Your task to perform on an android device: check google app version Image 0: 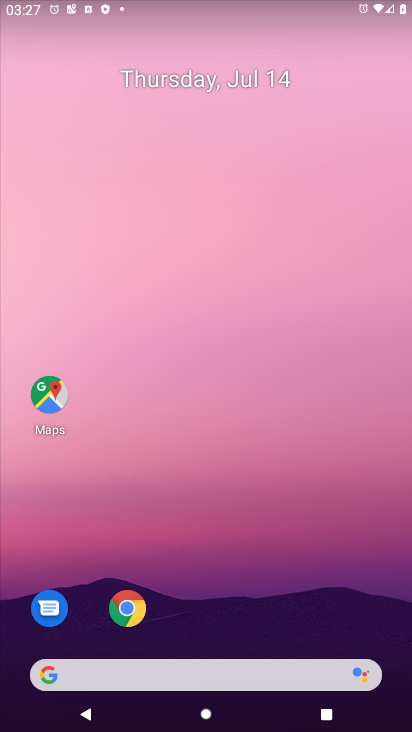
Step 0: click (131, 609)
Your task to perform on an android device: check google app version Image 1: 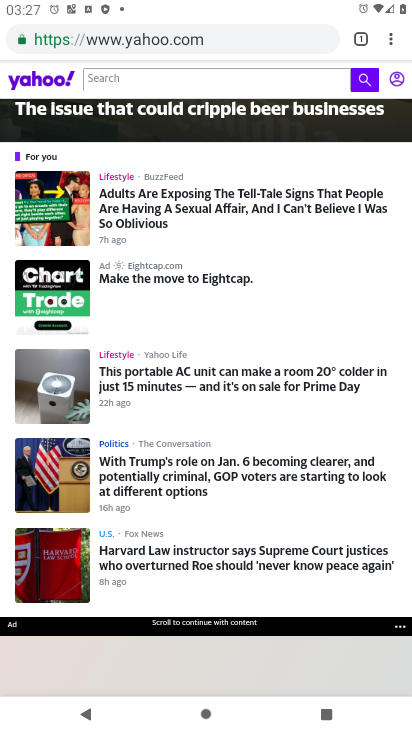
Step 1: click (388, 38)
Your task to perform on an android device: check google app version Image 2: 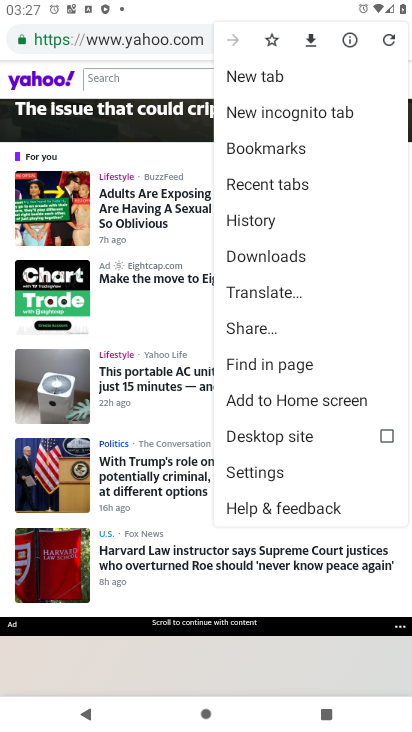
Step 2: click (272, 476)
Your task to perform on an android device: check google app version Image 3: 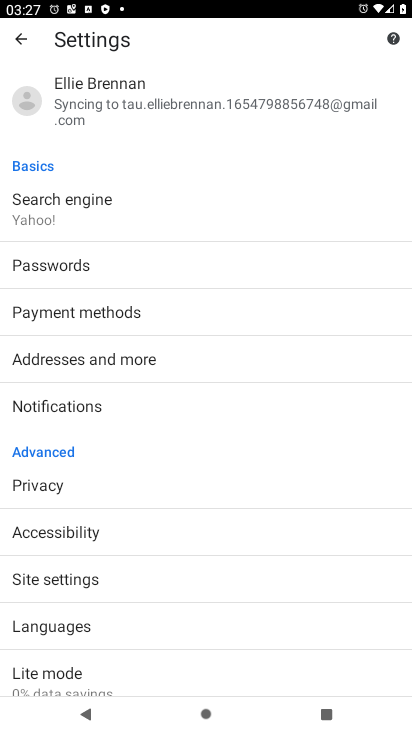
Step 3: drag from (192, 651) to (236, 311)
Your task to perform on an android device: check google app version Image 4: 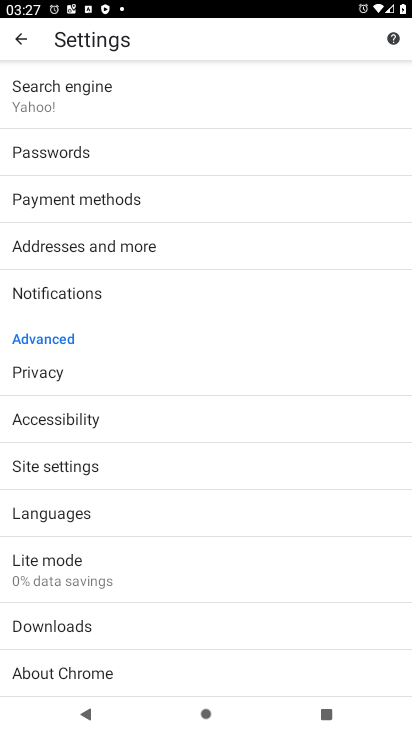
Step 4: click (38, 670)
Your task to perform on an android device: check google app version Image 5: 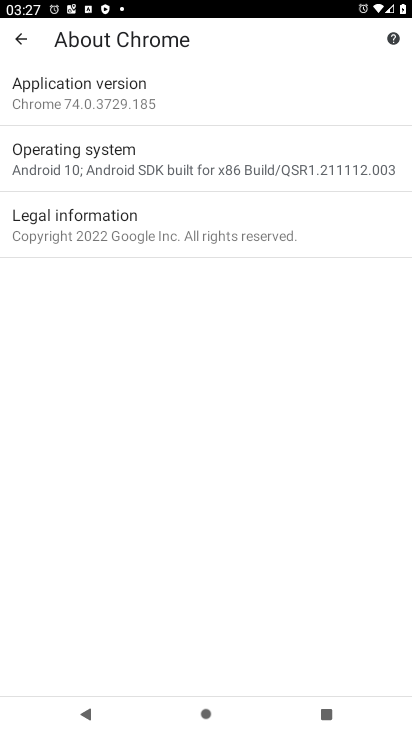
Step 5: click (101, 96)
Your task to perform on an android device: check google app version Image 6: 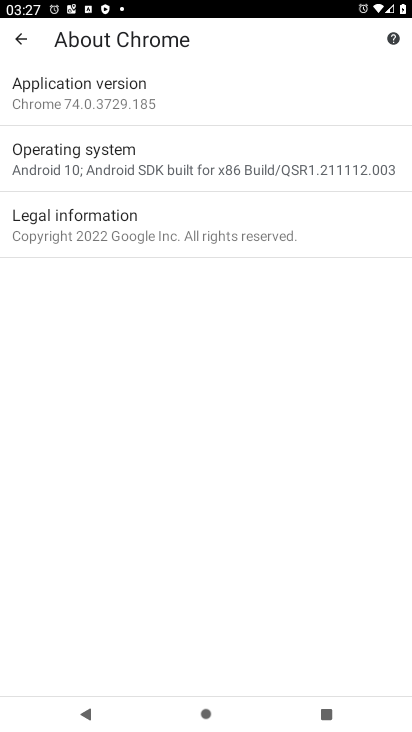
Step 6: task complete